Your task to perform on an android device: turn off javascript in the chrome app Image 0: 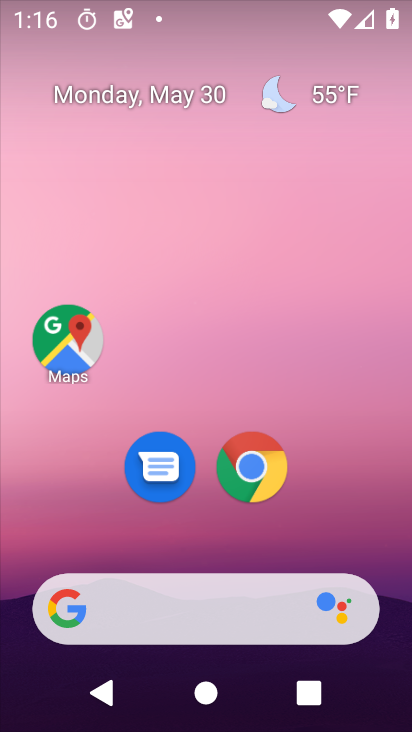
Step 0: click (253, 472)
Your task to perform on an android device: turn off javascript in the chrome app Image 1: 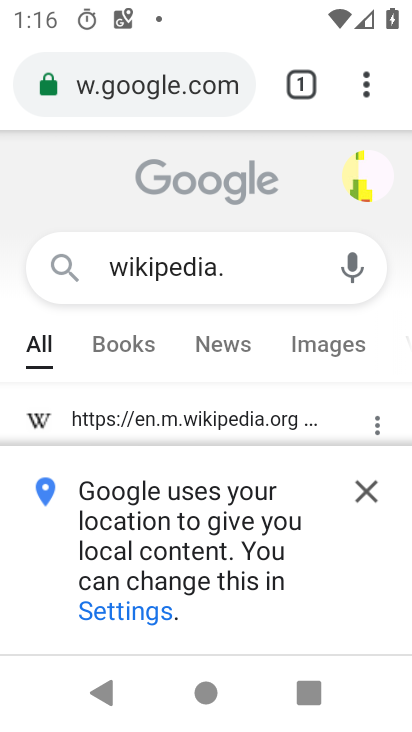
Step 1: click (369, 86)
Your task to perform on an android device: turn off javascript in the chrome app Image 2: 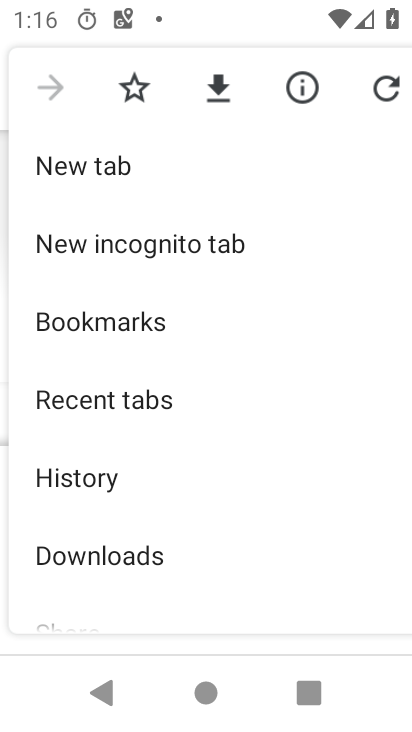
Step 2: drag from (195, 583) to (181, 186)
Your task to perform on an android device: turn off javascript in the chrome app Image 3: 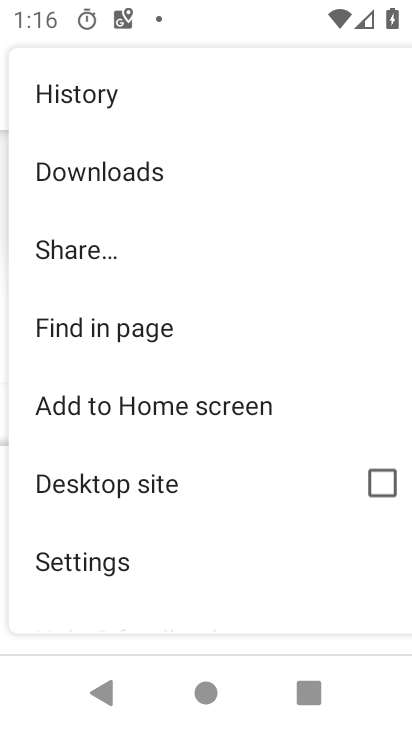
Step 3: click (116, 568)
Your task to perform on an android device: turn off javascript in the chrome app Image 4: 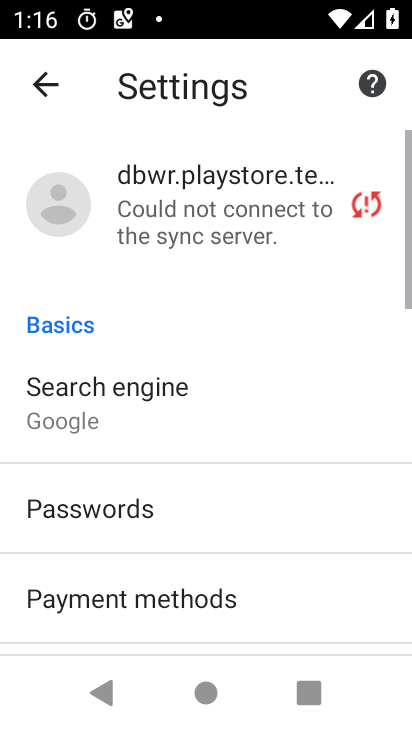
Step 4: drag from (257, 594) to (219, 153)
Your task to perform on an android device: turn off javascript in the chrome app Image 5: 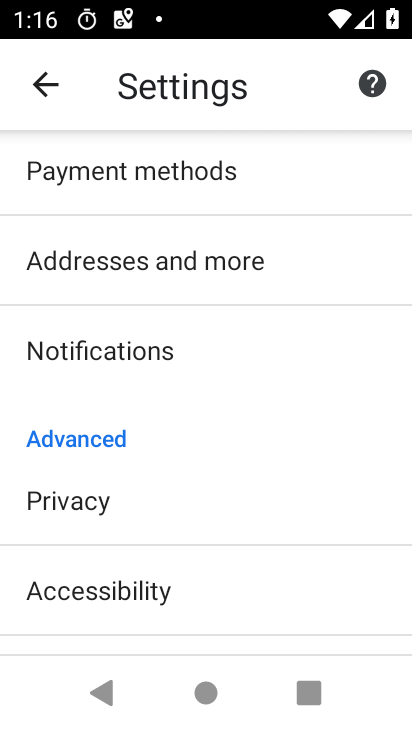
Step 5: drag from (111, 613) to (100, 294)
Your task to perform on an android device: turn off javascript in the chrome app Image 6: 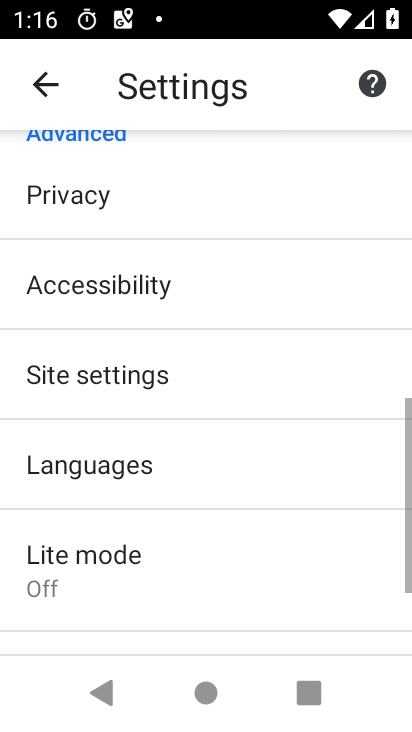
Step 6: click (62, 466)
Your task to perform on an android device: turn off javascript in the chrome app Image 7: 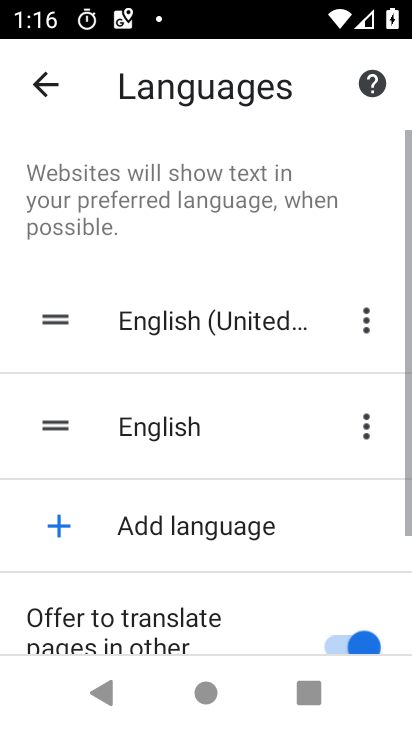
Step 7: click (42, 92)
Your task to perform on an android device: turn off javascript in the chrome app Image 8: 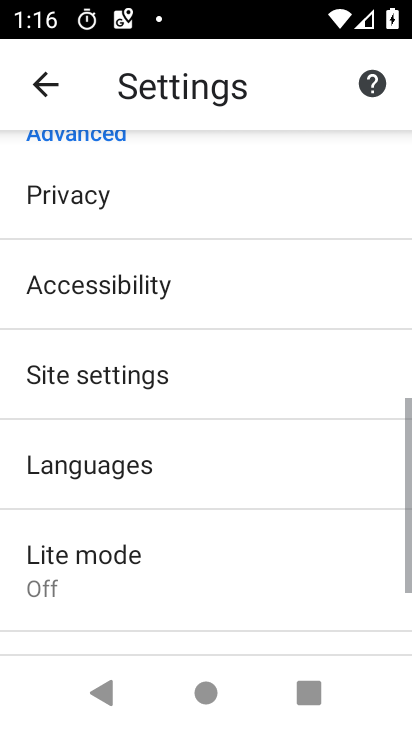
Step 8: click (90, 379)
Your task to perform on an android device: turn off javascript in the chrome app Image 9: 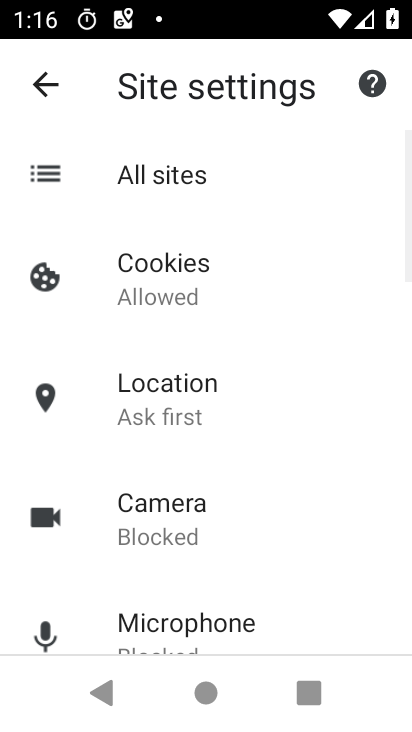
Step 9: drag from (280, 627) to (253, 298)
Your task to perform on an android device: turn off javascript in the chrome app Image 10: 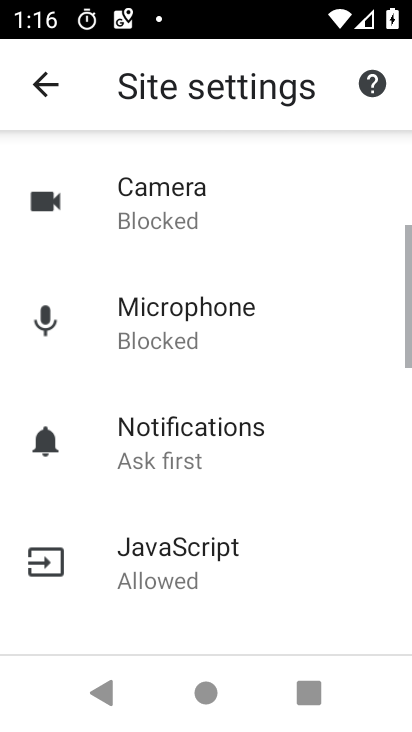
Step 10: click (136, 569)
Your task to perform on an android device: turn off javascript in the chrome app Image 11: 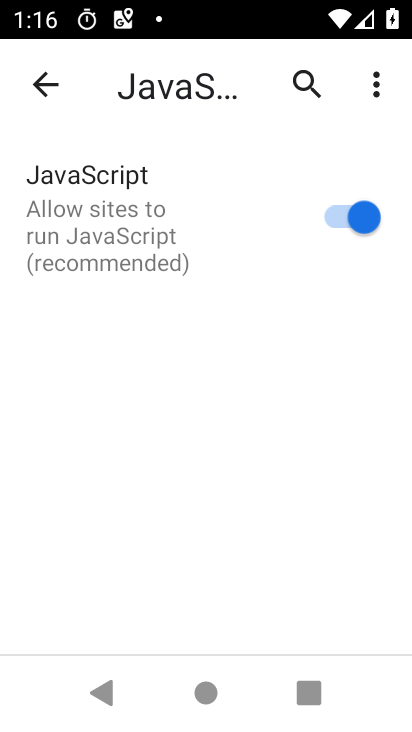
Step 11: click (341, 212)
Your task to perform on an android device: turn off javascript in the chrome app Image 12: 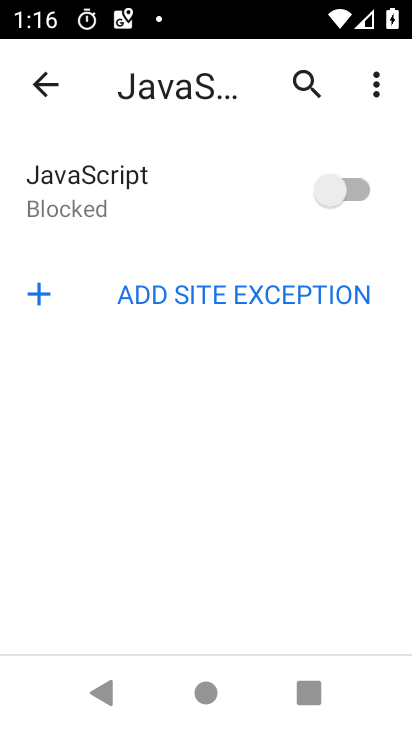
Step 12: task complete